Your task to perform on an android device: refresh tabs in the chrome app Image 0: 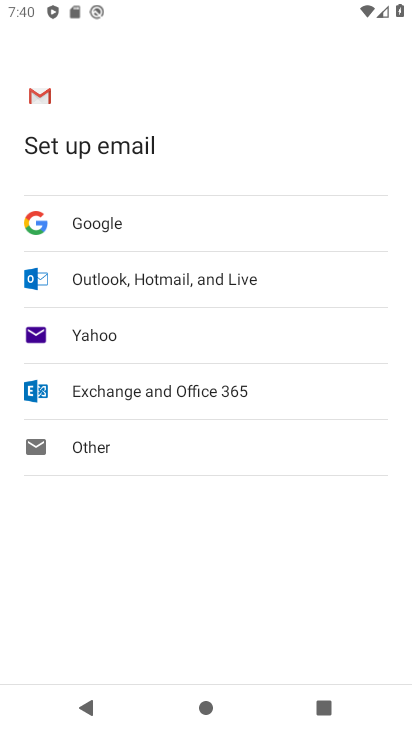
Step 0: press home button
Your task to perform on an android device: refresh tabs in the chrome app Image 1: 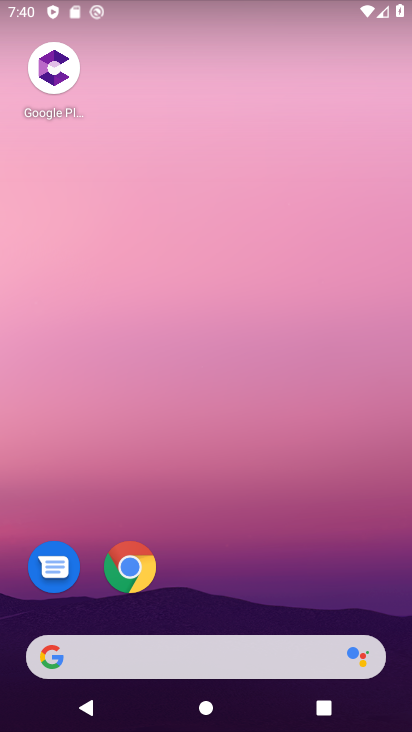
Step 1: click (125, 572)
Your task to perform on an android device: refresh tabs in the chrome app Image 2: 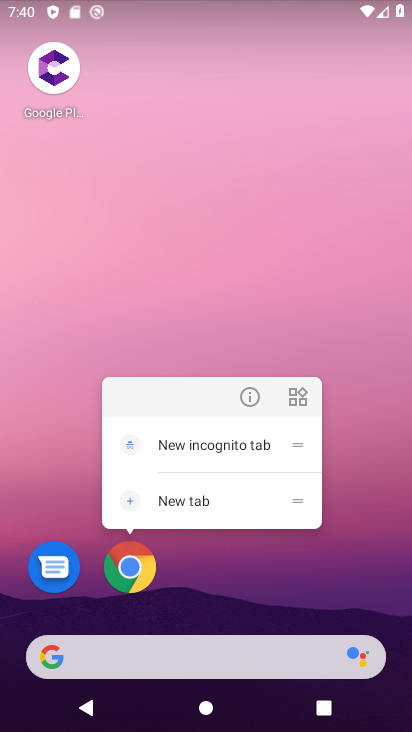
Step 2: click (124, 571)
Your task to perform on an android device: refresh tabs in the chrome app Image 3: 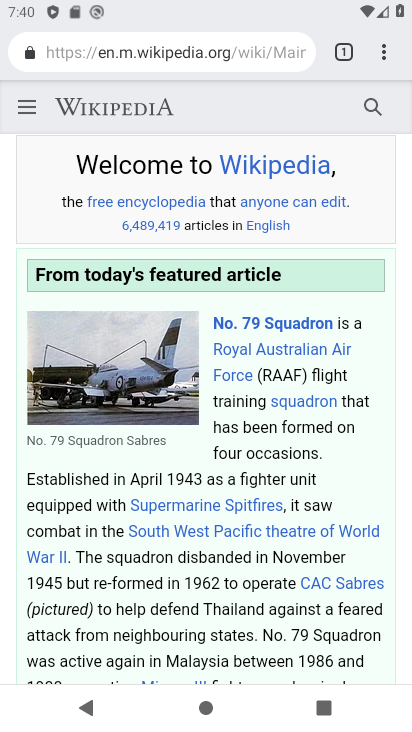
Step 3: click (381, 65)
Your task to perform on an android device: refresh tabs in the chrome app Image 4: 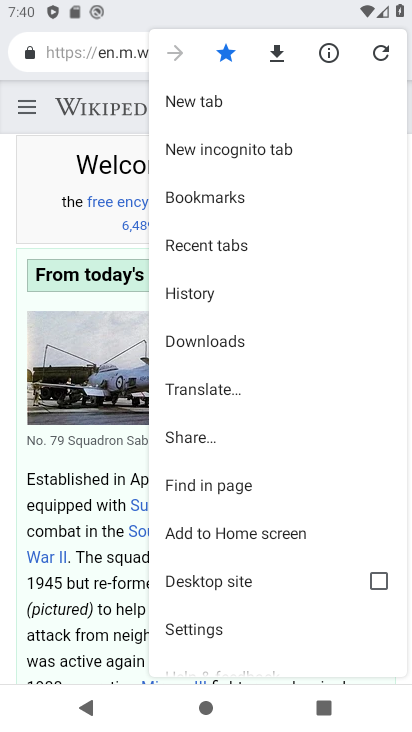
Step 4: click (382, 53)
Your task to perform on an android device: refresh tabs in the chrome app Image 5: 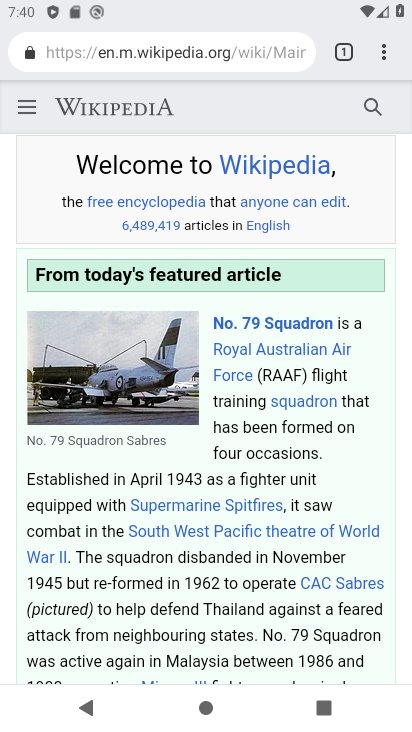
Step 5: task complete